Your task to perform on an android device: stop showing notifications on the lock screen Image 0: 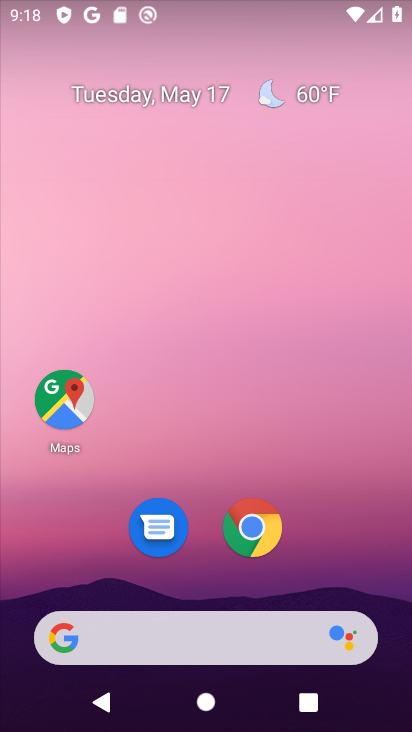
Step 0: drag from (208, 496) to (274, 80)
Your task to perform on an android device: stop showing notifications on the lock screen Image 1: 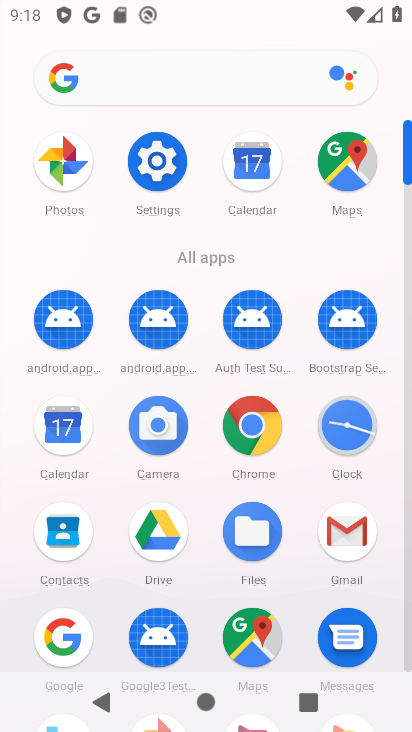
Step 1: click (165, 157)
Your task to perform on an android device: stop showing notifications on the lock screen Image 2: 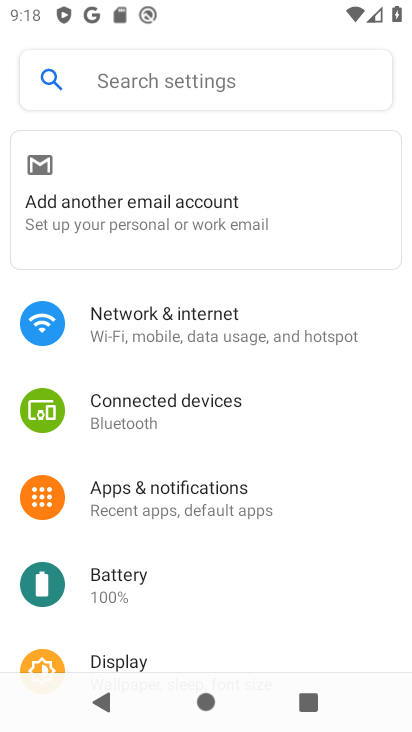
Step 2: click (156, 489)
Your task to perform on an android device: stop showing notifications on the lock screen Image 3: 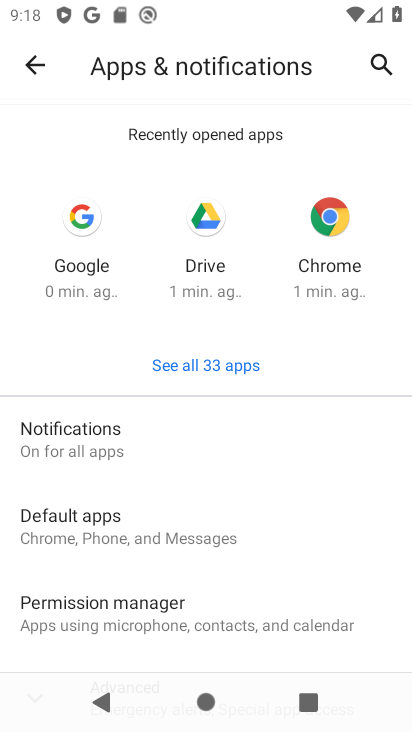
Step 3: click (144, 439)
Your task to perform on an android device: stop showing notifications on the lock screen Image 4: 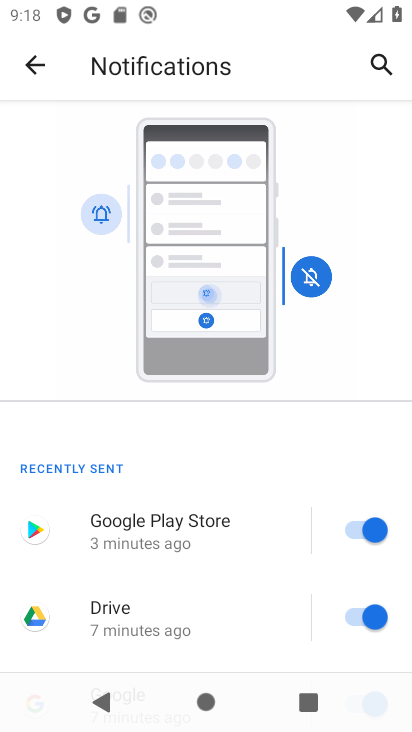
Step 4: drag from (184, 629) to (254, 157)
Your task to perform on an android device: stop showing notifications on the lock screen Image 5: 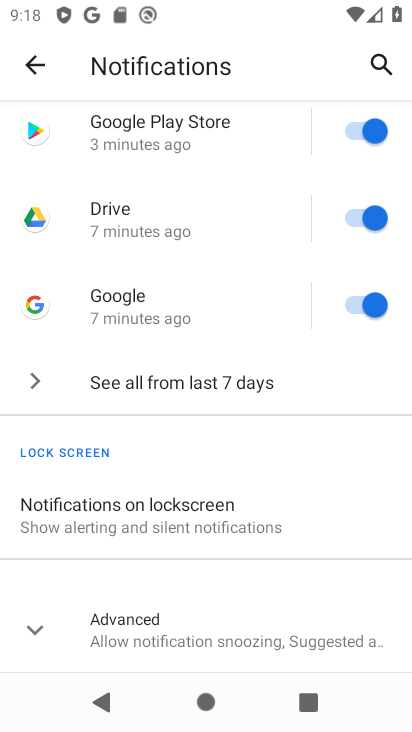
Step 5: click (215, 515)
Your task to perform on an android device: stop showing notifications on the lock screen Image 6: 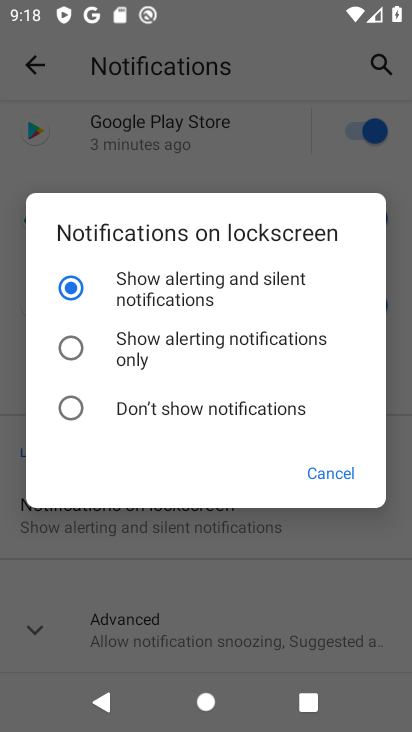
Step 6: click (71, 411)
Your task to perform on an android device: stop showing notifications on the lock screen Image 7: 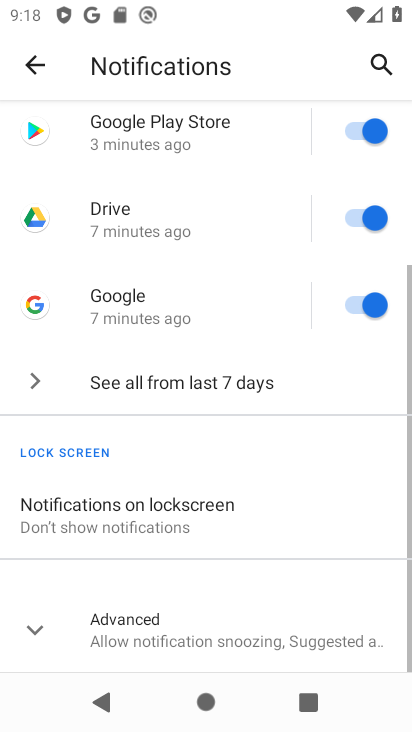
Step 7: task complete